Your task to perform on an android device: Set the phone to "Do not disturb". Image 0: 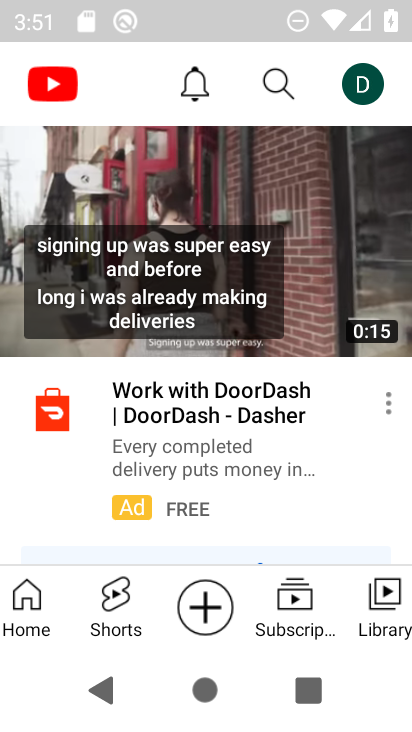
Step 0: drag from (169, 8) to (187, 516)
Your task to perform on an android device: Set the phone to "Do not disturb". Image 1: 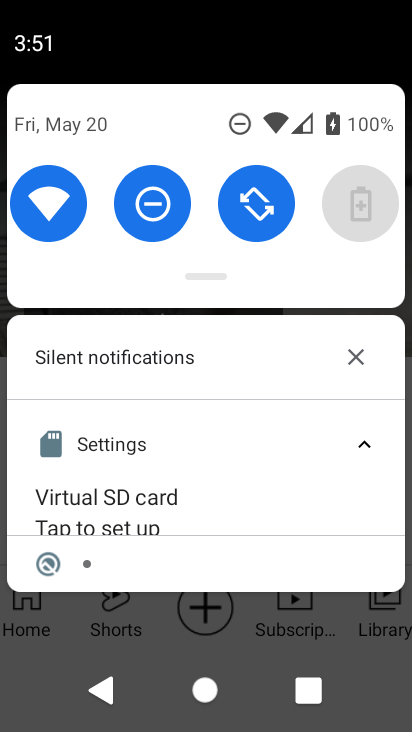
Step 1: task complete